Your task to perform on an android device: Open calendar and show me the second week of next month Image 0: 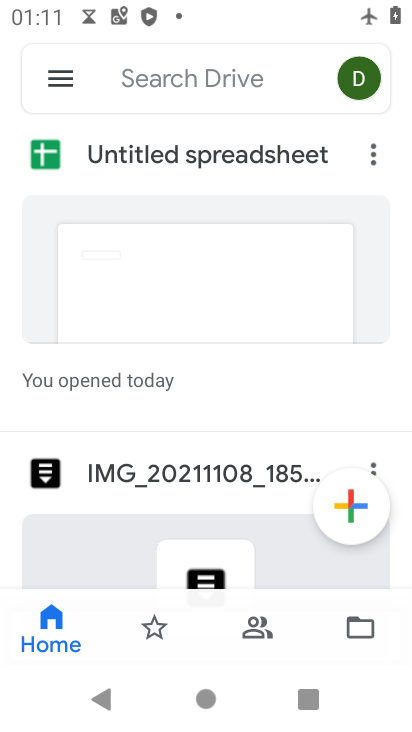
Step 0: press home button
Your task to perform on an android device: Open calendar and show me the second week of next month Image 1: 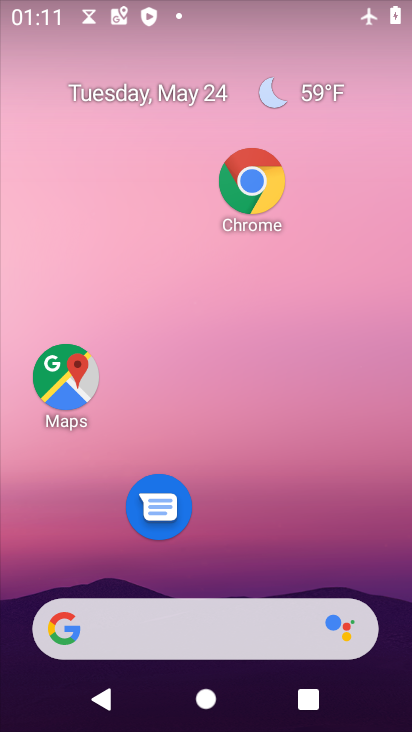
Step 1: drag from (241, 582) to (290, 285)
Your task to perform on an android device: Open calendar and show me the second week of next month Image 2: 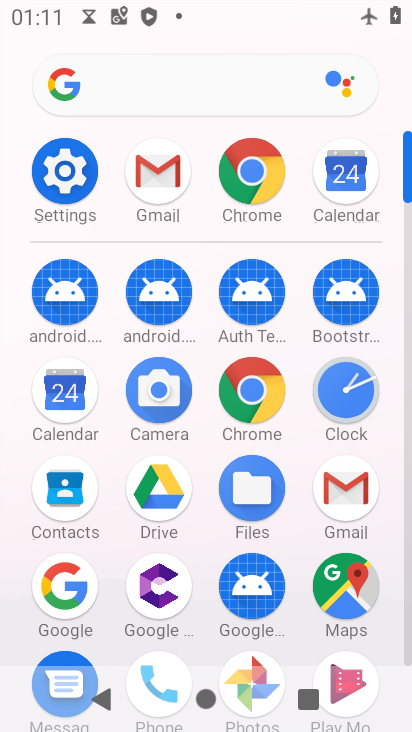
Step 2: click (67, 396)
Your task to perform on an android device: Open calendar and show me the second week of next month Image 3: 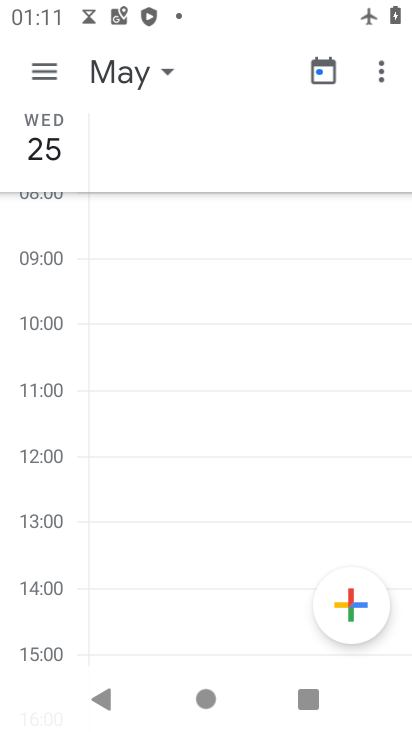
Step 3: click (40, 48)
Your task to perform on an android device: Open calendar and show me the second week of next month Image 4: 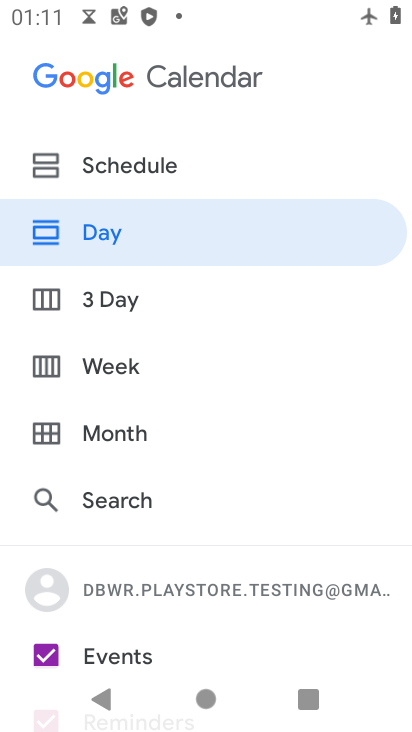
Step 4: click (151, 423)
Your task to perform on an android device: Open calendar and show me the second week of next month Image 5: 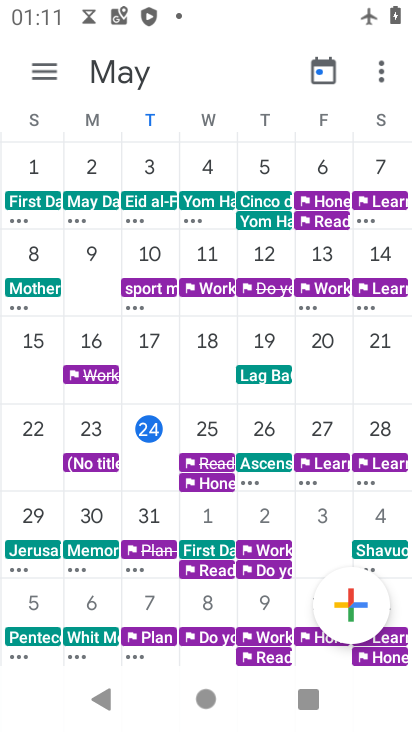
Step 5: task complete